Your task to perform on an android device: Open internet settings Image 0: 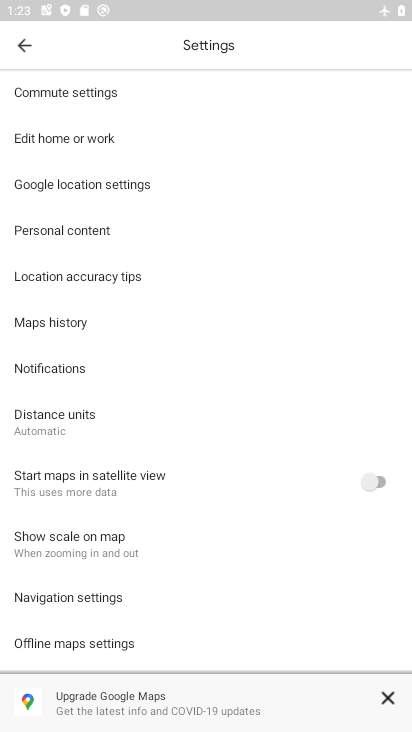
Step 0: press home button
Your task to perform on an android device: Open internet settings Image 1: 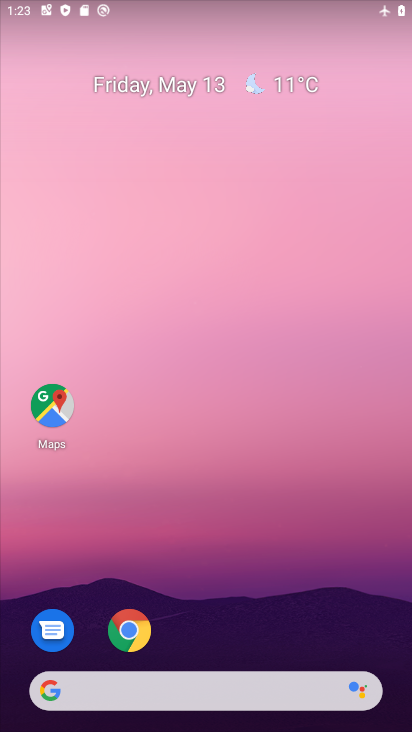
Step 1: drag from (307, 643) to (316, 13)
Your task to perform on an android device: Open internet settings Image 2: 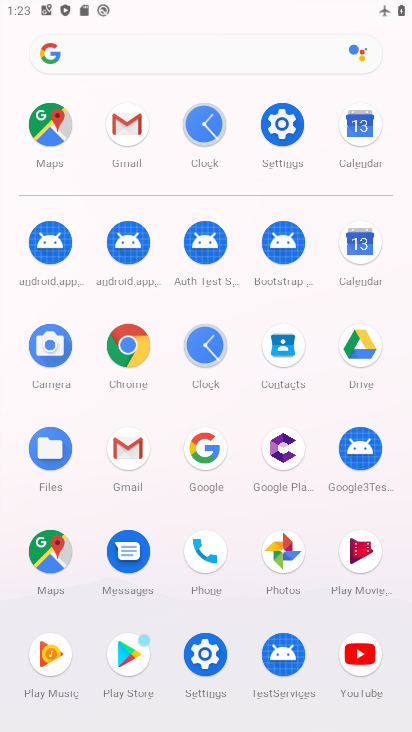
Step 2: click (281, 134)
Your task to perform on an android device: Open internet settings Image 3: 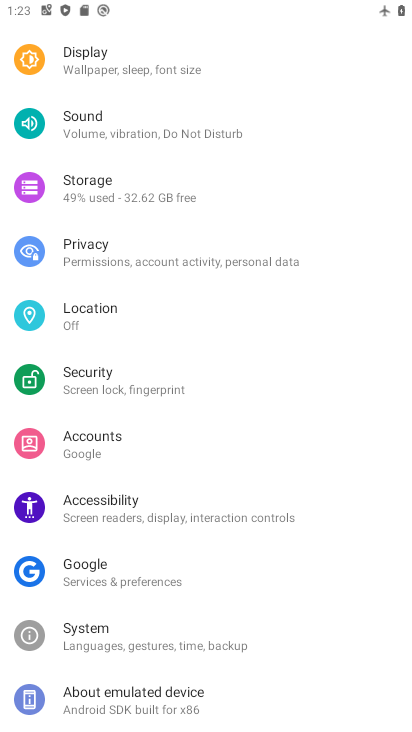
Step 3: drag from (308, 125) to (225, 569)
Your task to perform on an android device: Open internet settings Image 4: 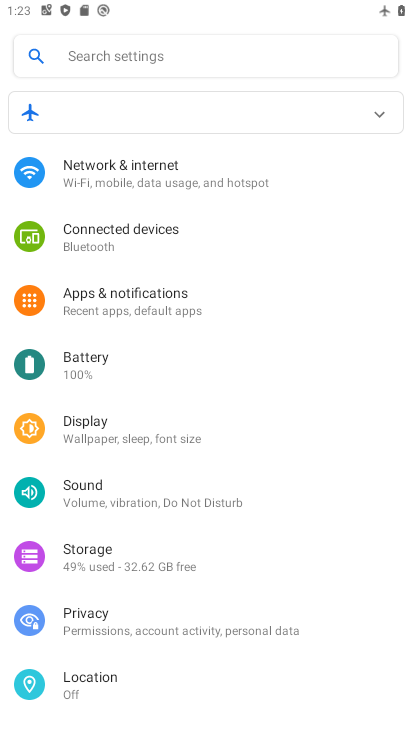
Step 4: click (63, 155)
Your task to perform on an android device: Open internet settings Image 5: 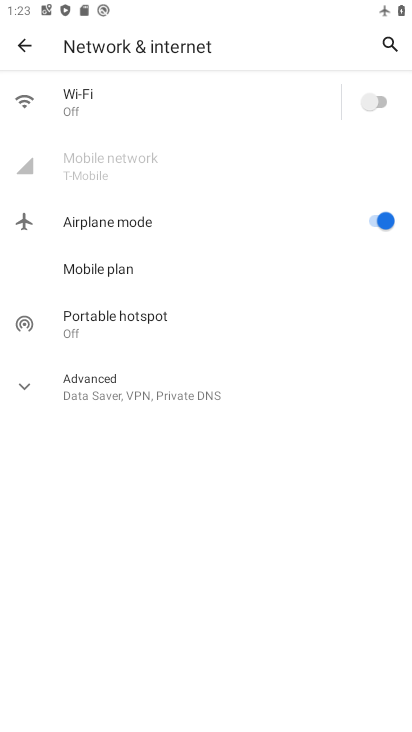
Step 5: click (28, 393)
Your task to perform on an android device: Open internet settings Image 6: 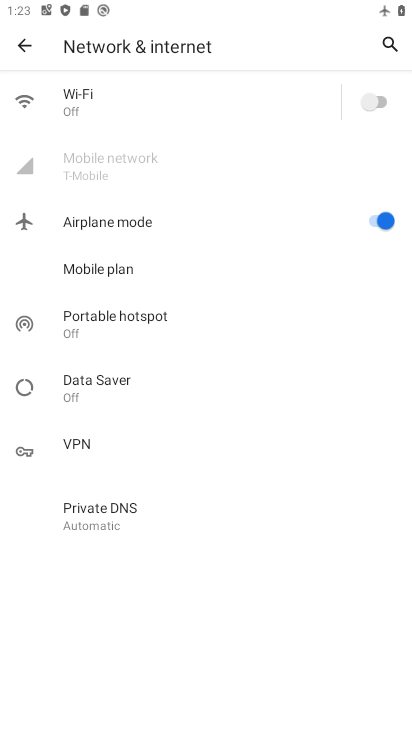
Step 6: task complete